Your task to perform on an android device: What's the weather going to be this weekend? Image 0: 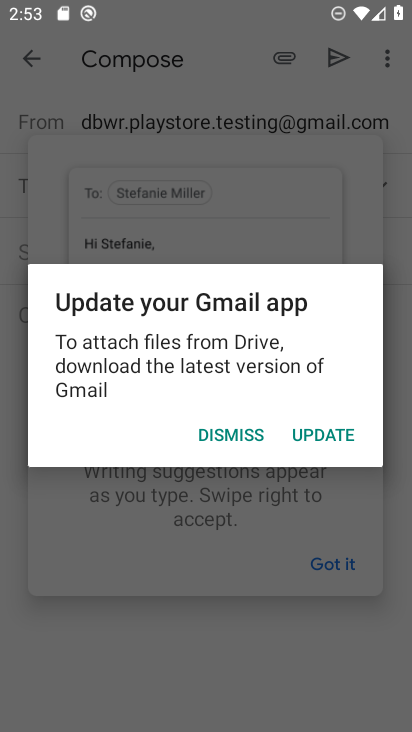
Step 0: press home button
Your task to perform on an android device: What's the weather going to be this weekend? Image 1: 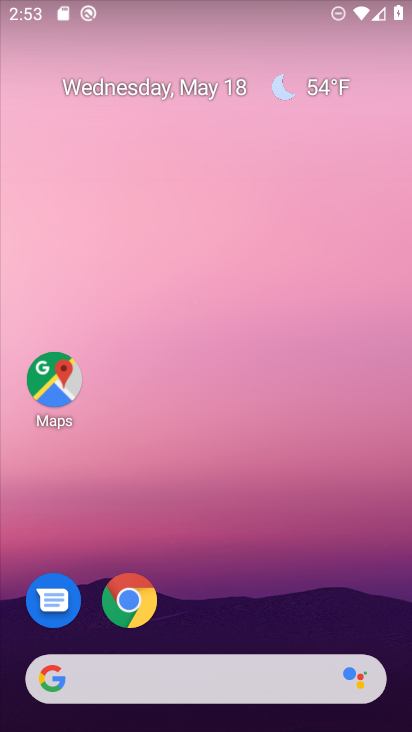
Step 1: click (325, 83)
Your task to perform on an android device: What's the weather going to be this weekend? Image 2: 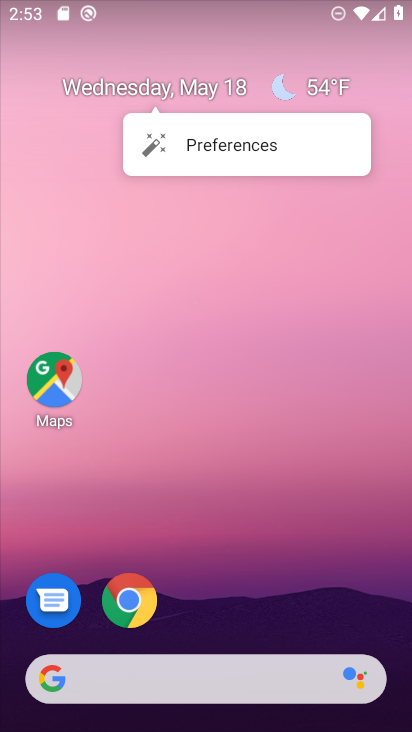
Step 2: click (313, 98)
Your task to perform on an android device: What's the weather going to be this weekend? Image 3: 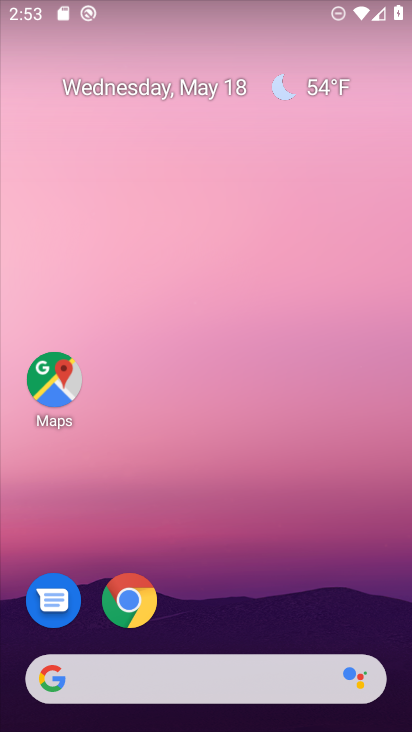
Step 3: click (312, 85)
Your task to perform on an android device: What's the weather going to be this weekend? Image 4: 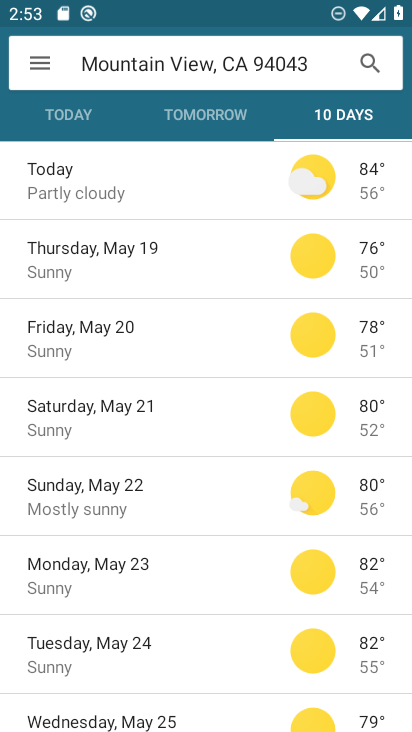
Step 4: task complete